Your task to perform on an android device: Open privacy settings Image 0: 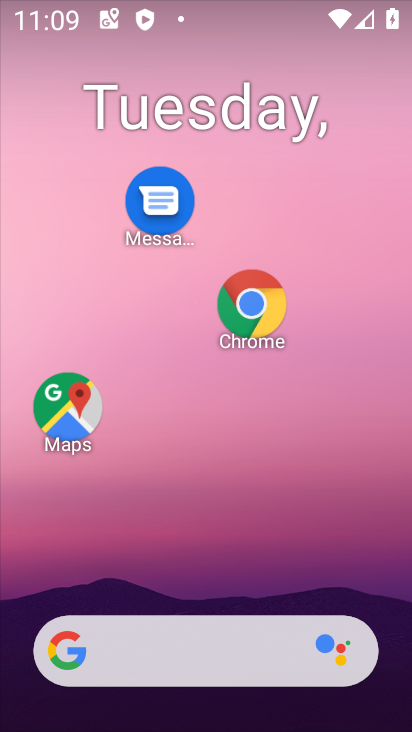
Step 0: drag from (226, 631) to (251, 183)
Your task to perform on an android device: Open privacy settings Image 1: 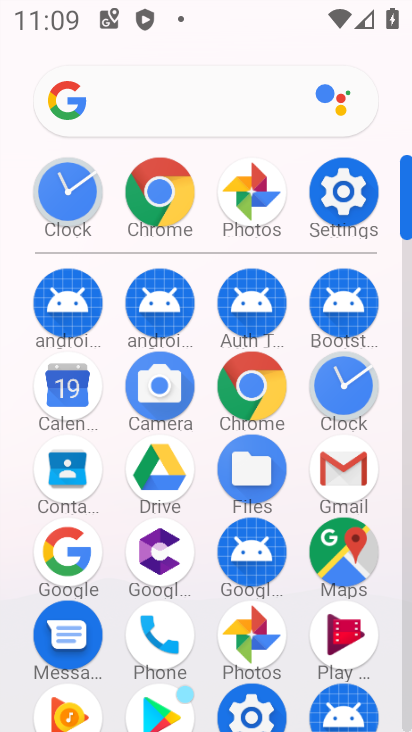
Step 1: click (342, 190)
Your task to perform on an android device: Open privacy settings Image 2: 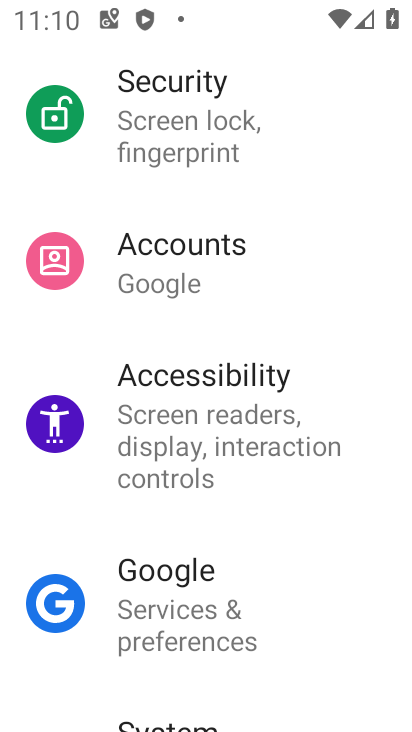
Step 2: drag from (217, 218) to (147, 703)
Your task to perform on an android device: Open privacy settings Image 3: 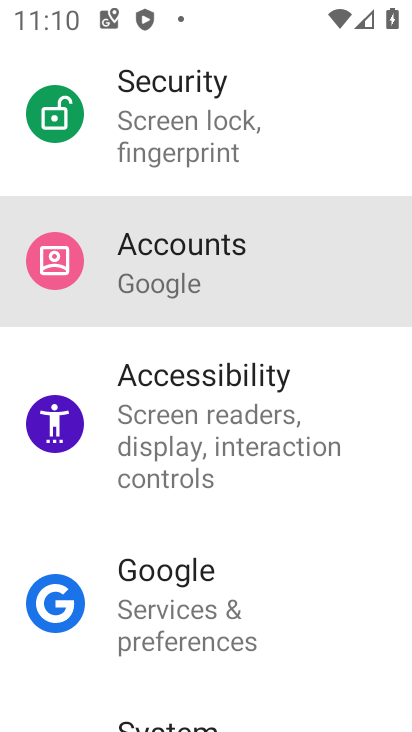
Step 3: drag from (146, 227) to (167, 668)
Your task to perform on an android device: Open privacy settings Image 4: 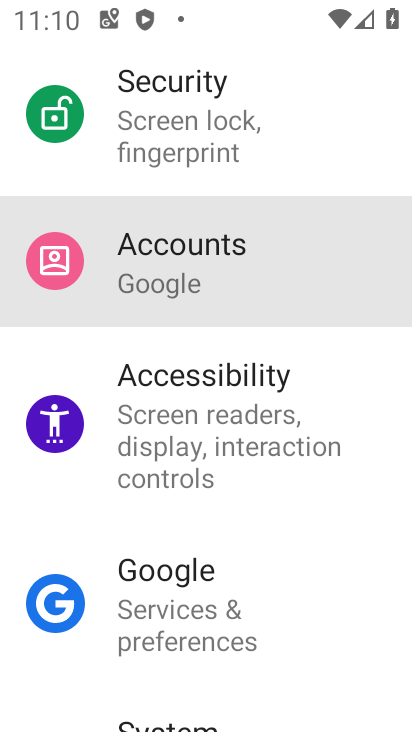
Step 4: drag from (153, 205) to (214, 516)
Your task to perform on an android device: Open privacy settings Image 5: 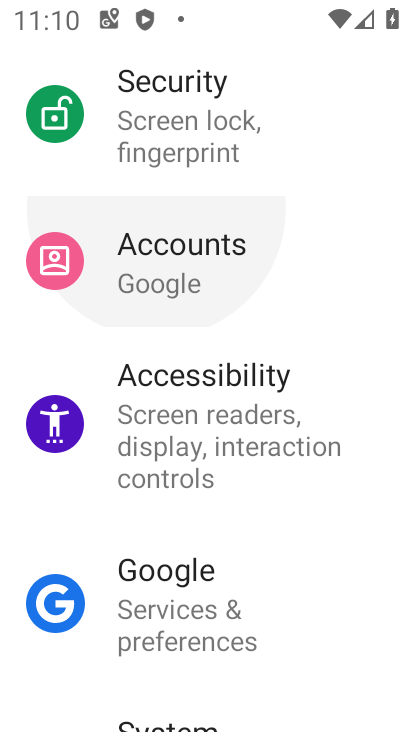
Step 5: drag from (258, 223) to (229, 565)
Your task to perform on an android device: Open privacy settings Image 6: 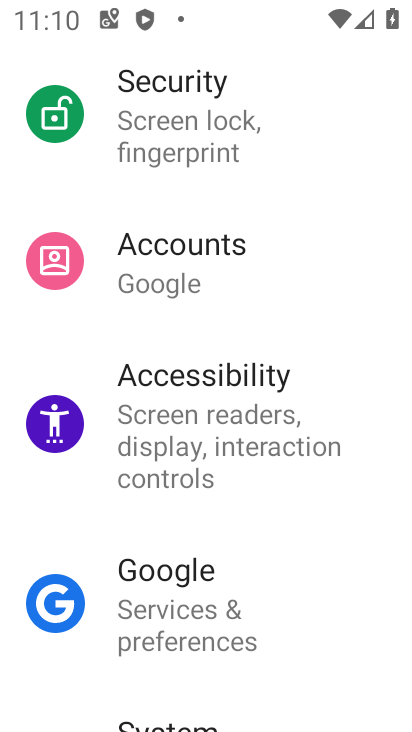
Step 6: drag from (223, 183) to (223, 596)
Your task to perform on an android device: Open privacy settings Image 7: 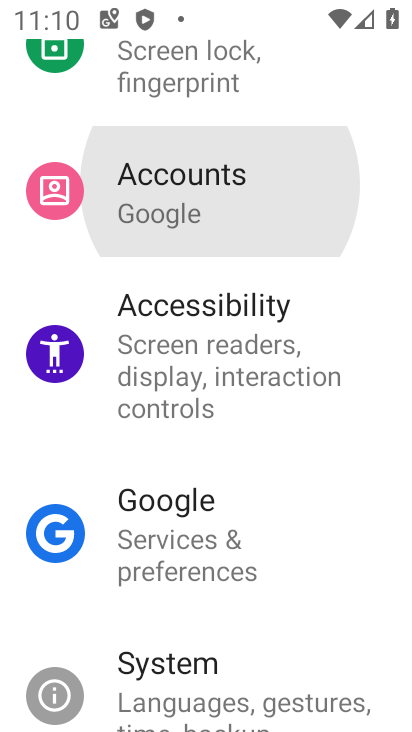
Step 7: drag from (215, 249) to (238, 656)
Your task to perform on an android device: Open privacy settings Image 8: 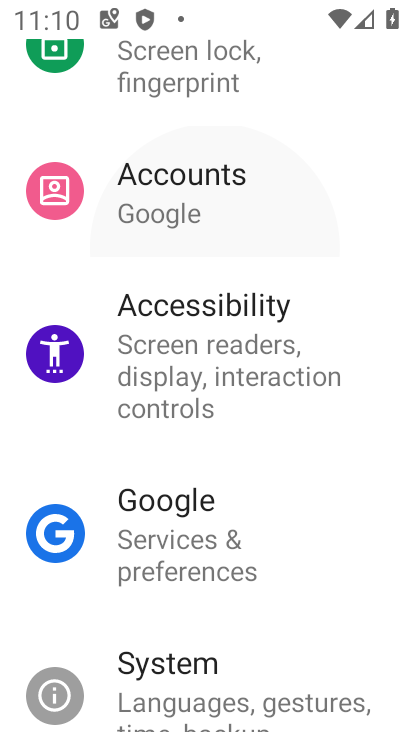
Step 8: drag from (211, 276) to (221, 549)
Your task to perform on an android device: Open privacy settings Image 9: 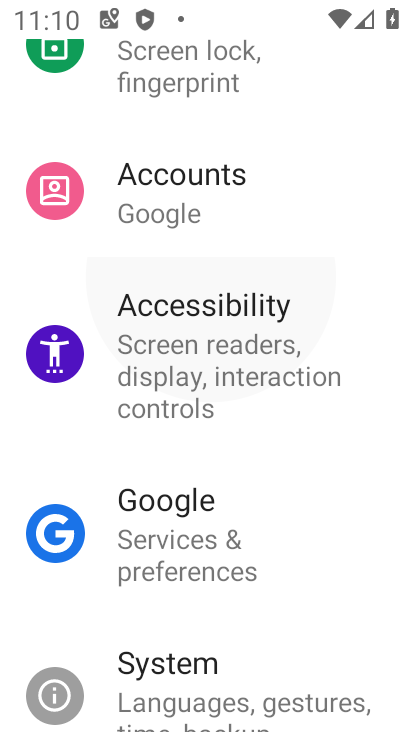
Step 9: drag from (242, 161) to (242, 394)
Your task to perform on an android device: Open privacy settings Image 10: 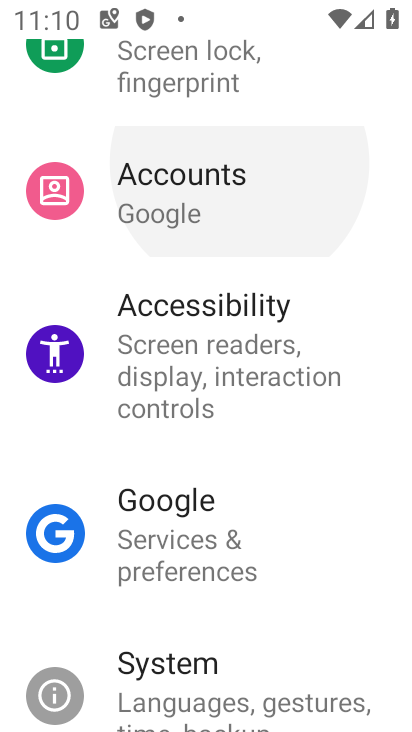
Step 10: drag from (209, 155) to (218, 446)
Your task to perform on an android device: Open privacy settings Image 11: 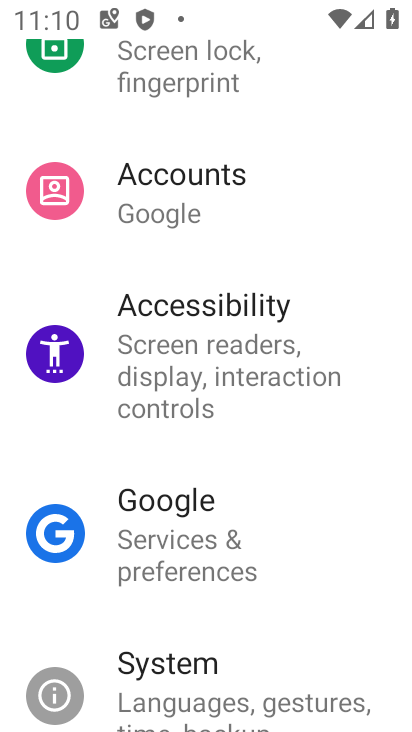
Step 11: press home button
Your task to perform on an android device: Open privacy settings Image 12: 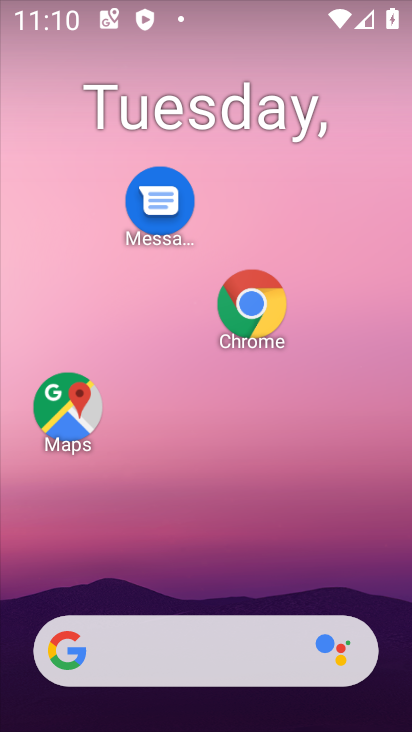
Step 12: click (247, 306)
Your task to perform on an android device: Open privacy settings Image 13: 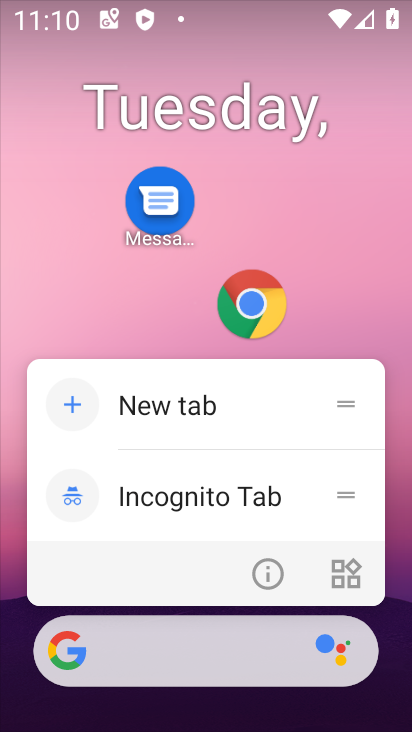
Step 13: click (247, 306)
Your task to perform on an android device: Open privacy settings Image 14: 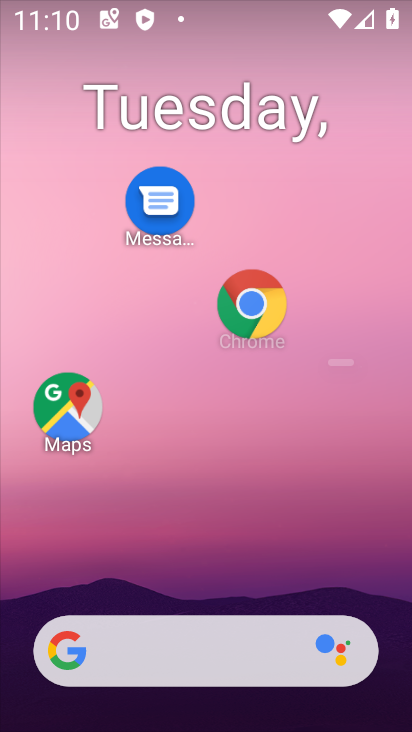
Step 14: click (247, 306)
Your task to perform on an android device: Open privacy settings Image 15: 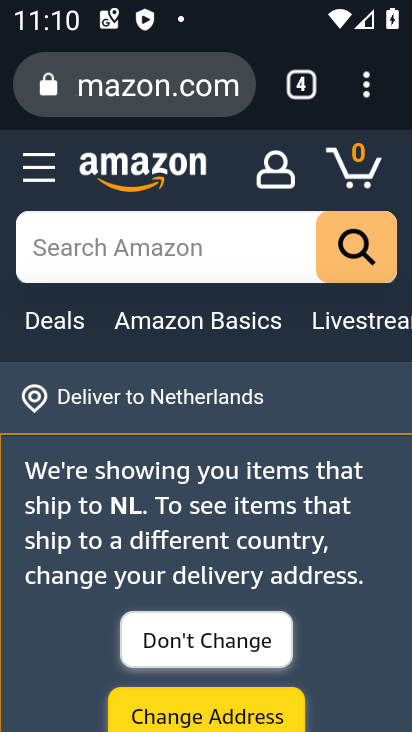
Step 15: click (372, 92)
Your task to perform on an android device: Open privacy settings Image 16: 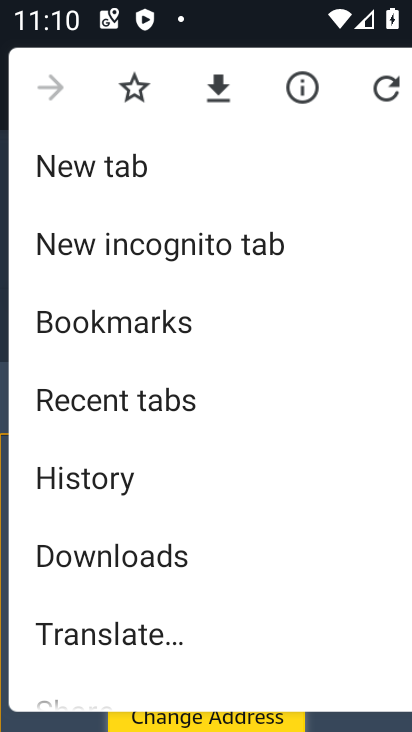
Step 16: drag from (236, 657) to (286, 133)
Your task to perform on an android device: Open privacy settings Image 17: 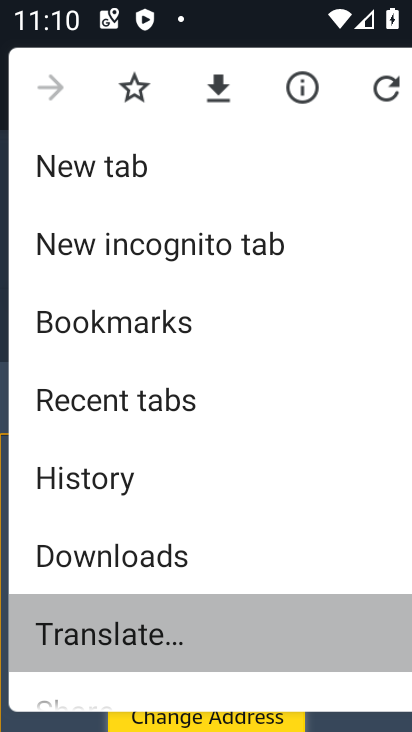
Step 17: drag from (216, 426) to (239, 108)
Your task to perform on an android device: Open privacy settings Image 18: 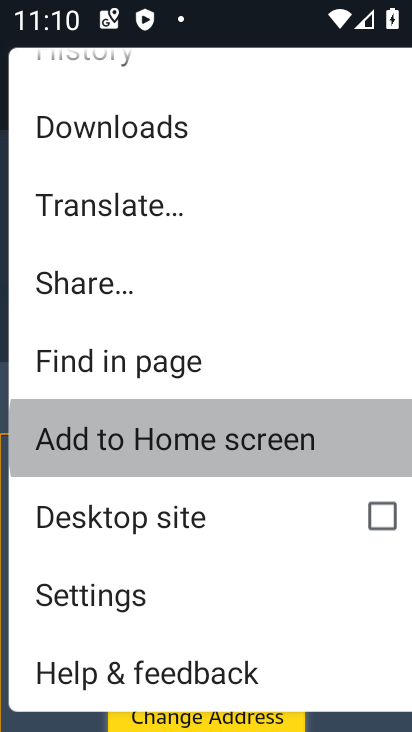
Step 18: drag from (261, 539) to (272, 184)
Your task to perform on an android device: Open privacy settings Image 19: 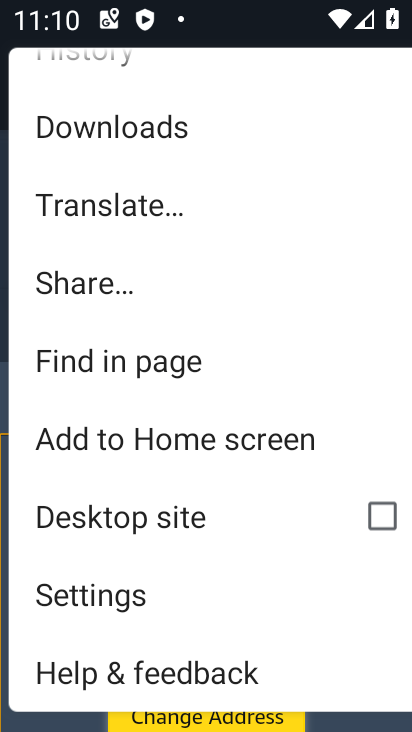
Step 19: click (129, 592)
Your task to perform on an android device: Open privacy settings Image 20: 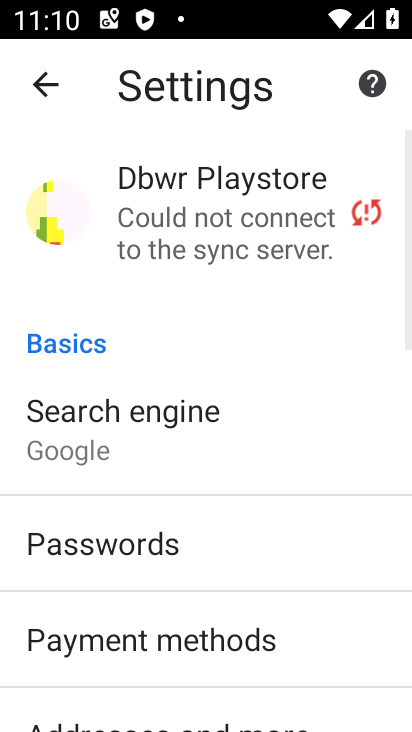
Step 20: drag from (132, 617) to (290, 197)
Your task to perform on an android device: Open privacy settings Image 21: 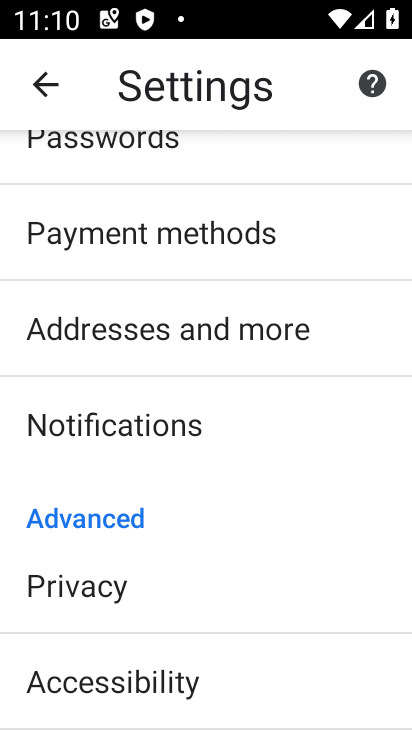
Step 21: drag from (201, 191) to (248, 158)
Your task to perform on an android device: Open privacy settings Image 22: 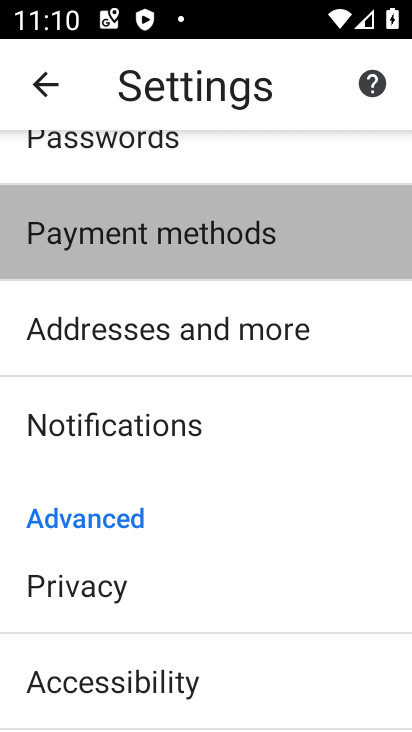
Step 22: click (138, 572)
Your task to perform on an android device: Open privacy settings Image 23: 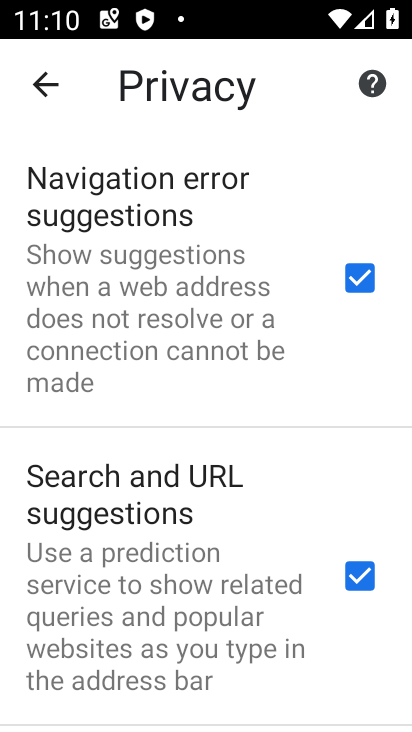
Step 23: task complete